Your task to perform on an android device: Open calendar and show me the third week of next month Image 0: 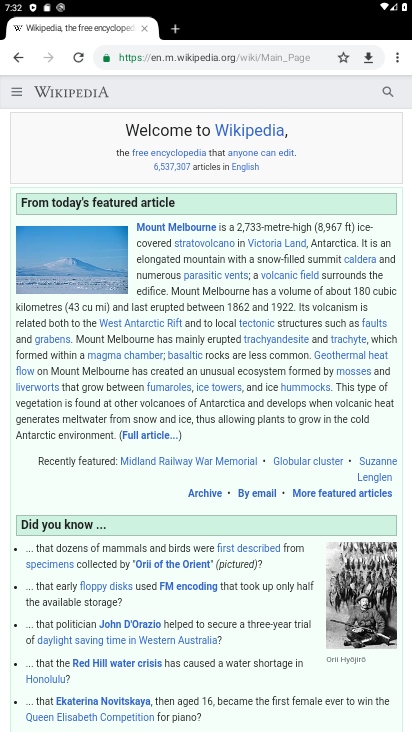
Step 0: press home button
Your task to perform on an android device: Open calendar and show me the third week of next month Image 1: 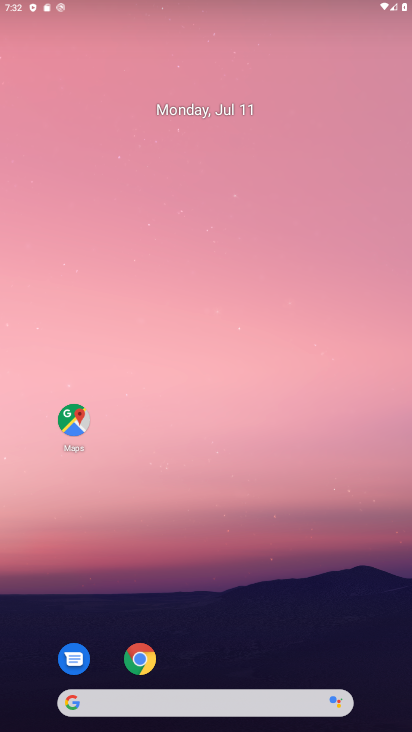
Step 1: drag from (360, 651) to (405, 236)
Your task to perform on an android device: Open calendar and show me the third week of next month Image 2: 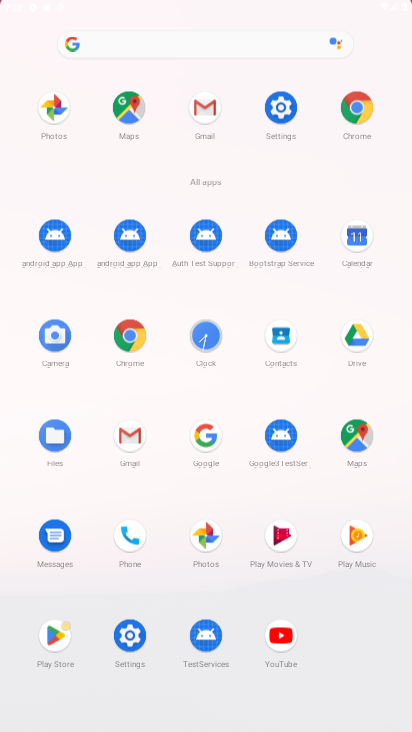
Step 2: click (353, 258)
Your task to perform on an android device: Open calendar and show me the third week of next month Image 3: 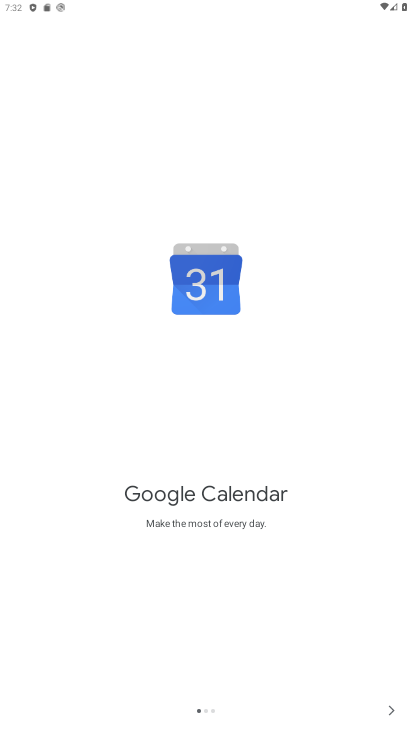
Step 3: click (392, 716)
Your task to perform on an android device: Open calendar and show me the third week of next month Image 4: 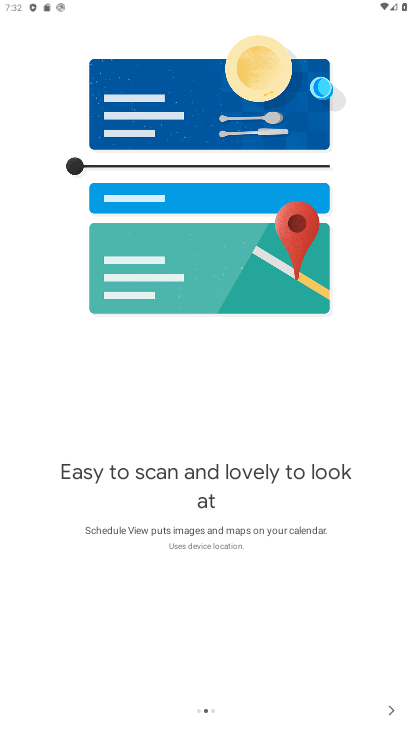
Step 4: click (388, 710)
Your task to perform on an android device: Open calendar and show me the third week of next month Image 5: 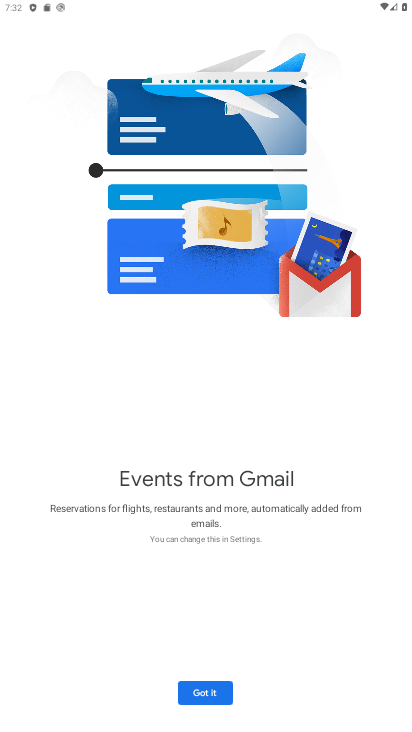
Step 5: click (218, 689)
Your task to perform on an android device: Open calendar and show me the third week of next month Image 6: 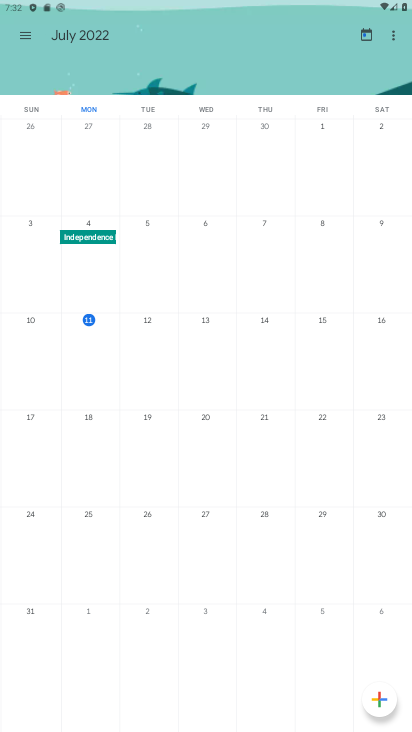
Step 6: drag from (380, 303) to (5, 228)
Your task to perform on an android device: Open calendar and show me the third week of next month Image 7: 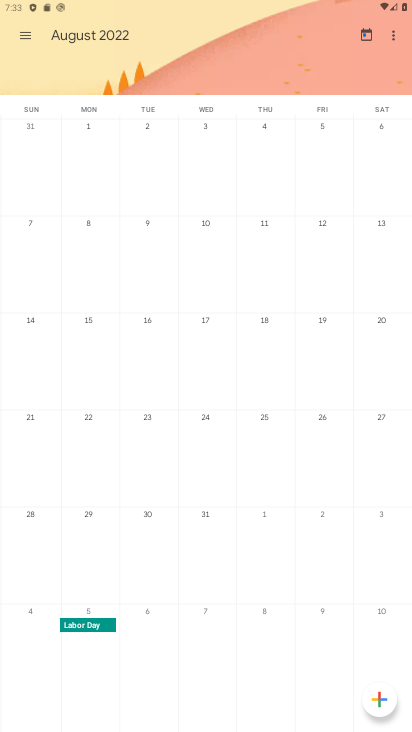
Step 7: click (34, 419)
Your task to perform on an android device: Open calendar and show me the third week of next month Image 8: 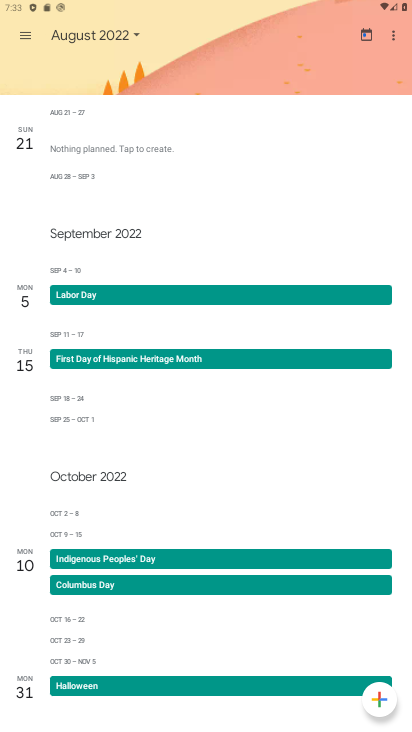
Step 8: task complete